Your task to perform on an android device: check android version Image 0: 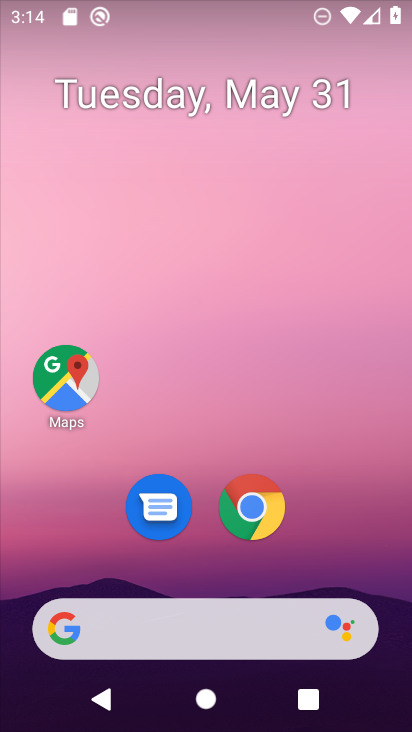
Step 0: drag from (172, 722) to (174, 29)
Your task to perform on an android device: check android version Image 1: 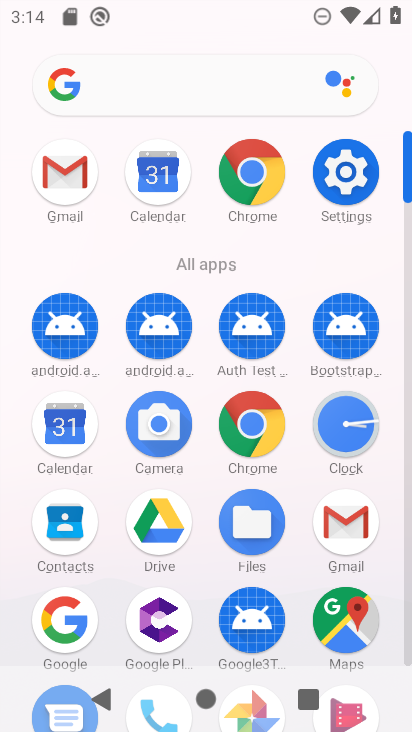
Step 1: click (353, 175)
Your task to perform on an android device: check android version Image 2: 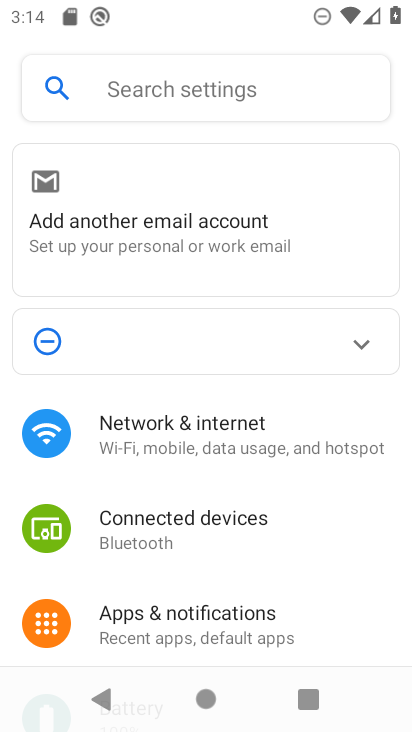
Step 2: drag from (271, 625) to (265, 231)
Your task to perform on an android device: check android version Image 3: 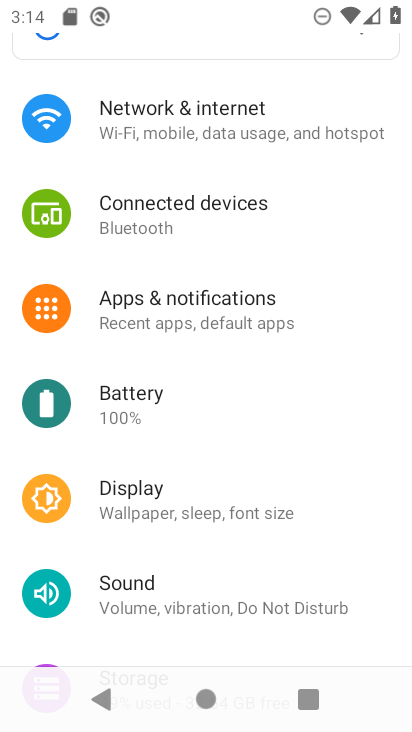
Step 3: drag from (184, 630) to (162, 94)
Your task to perform on an android device: check android version Image 4: 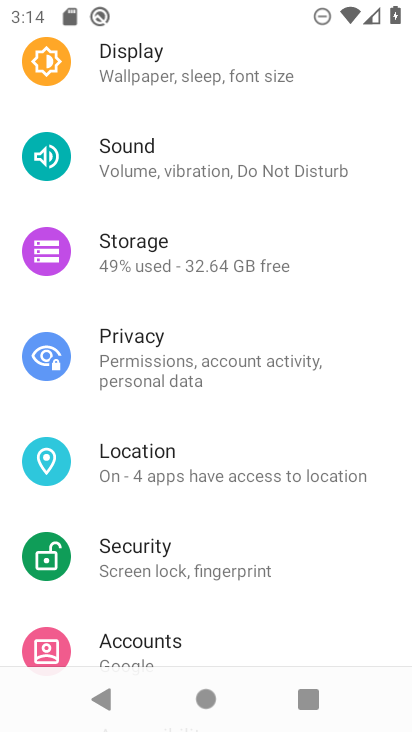
Step 4: drag from (205, 610) to (274, 127)
Your task to perform on an android device: check android version Image 5: 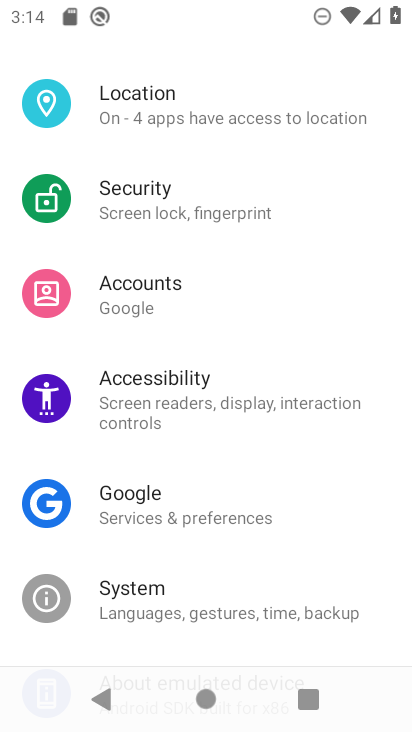
Step 5: drag from (196, 594) to (219, 258)
Your task to perform on an android device: check android version Image 6: 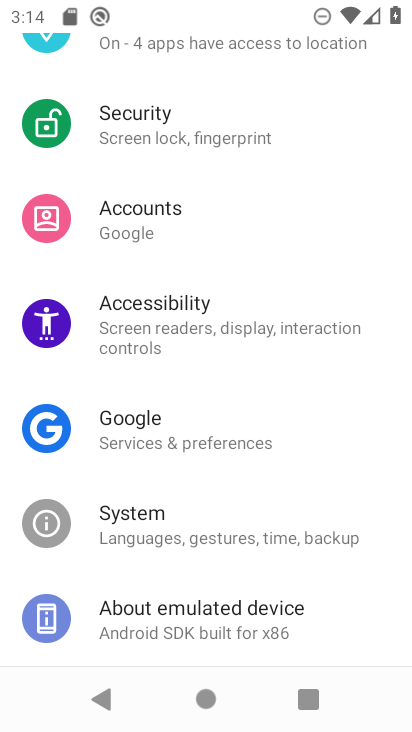
Step 6: click (223, 620)
Your task to perform on an android device: check android version Image 7: 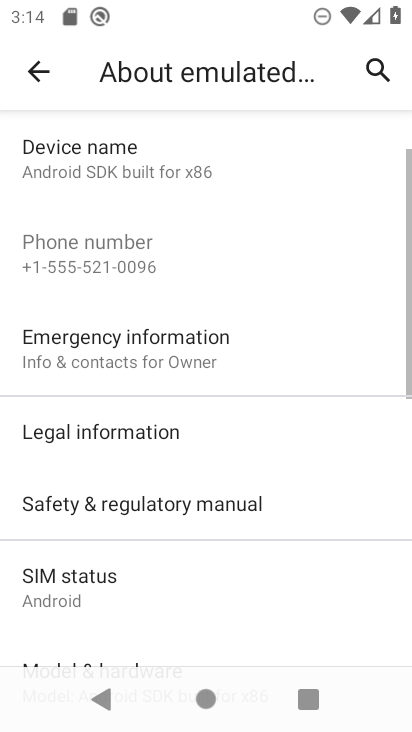
Step 7: drag from (278, 601) to (353, 205)
Your task to perform on an android device: check android version Image 8: 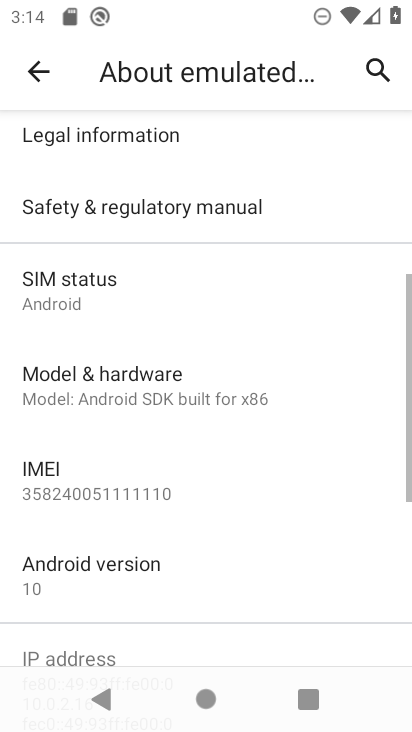
Step 8: click (175, 591)
Your task to perform on an android device: check android version Image 9: 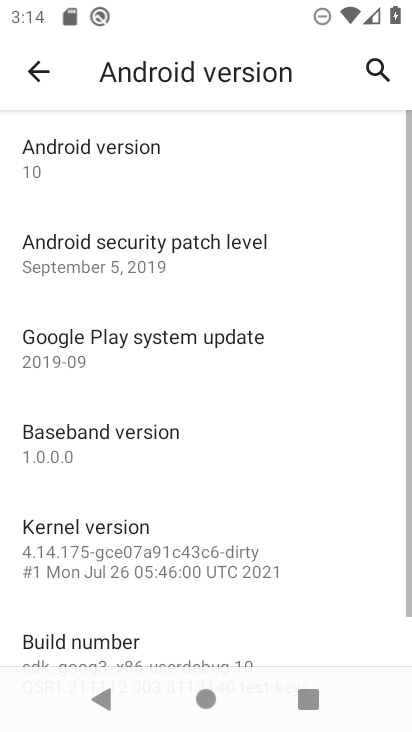
Step 9: task complete